Your task to perform on an android device: Open CNN.com Image 0: 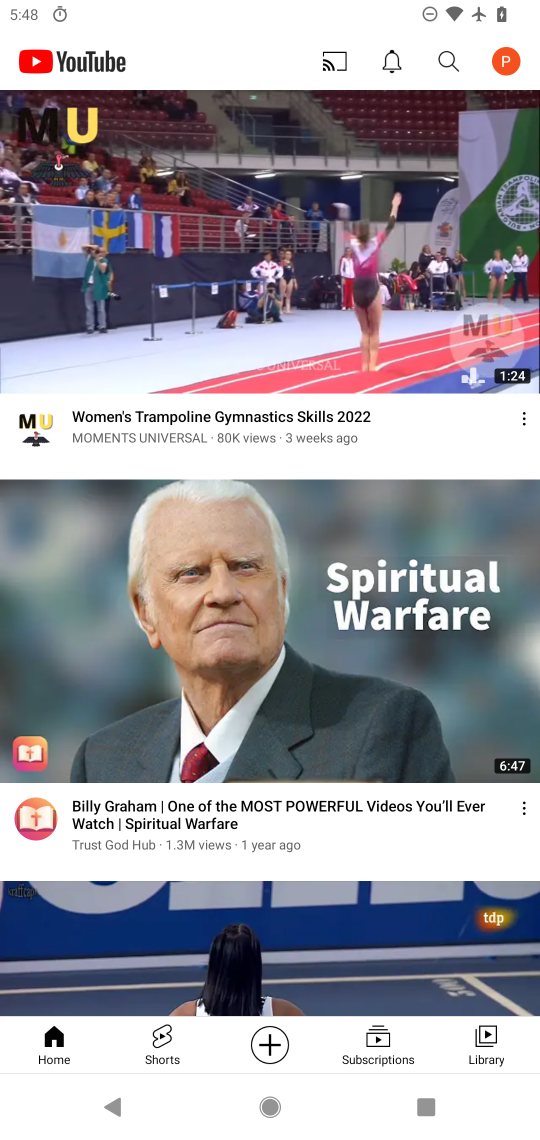
Step 0: press home button
Your task to perform on an android device: Open CNN.com Image 1: 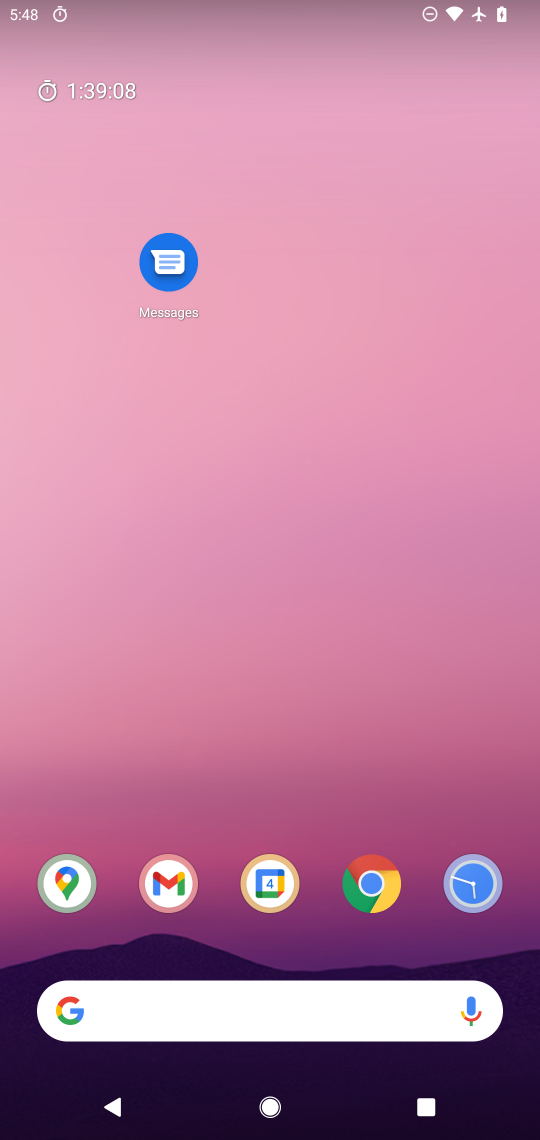
Step 1: drag from (311, 893) to (311, 85)
Your task to perform on an android device: Open CNN.com Image 2: 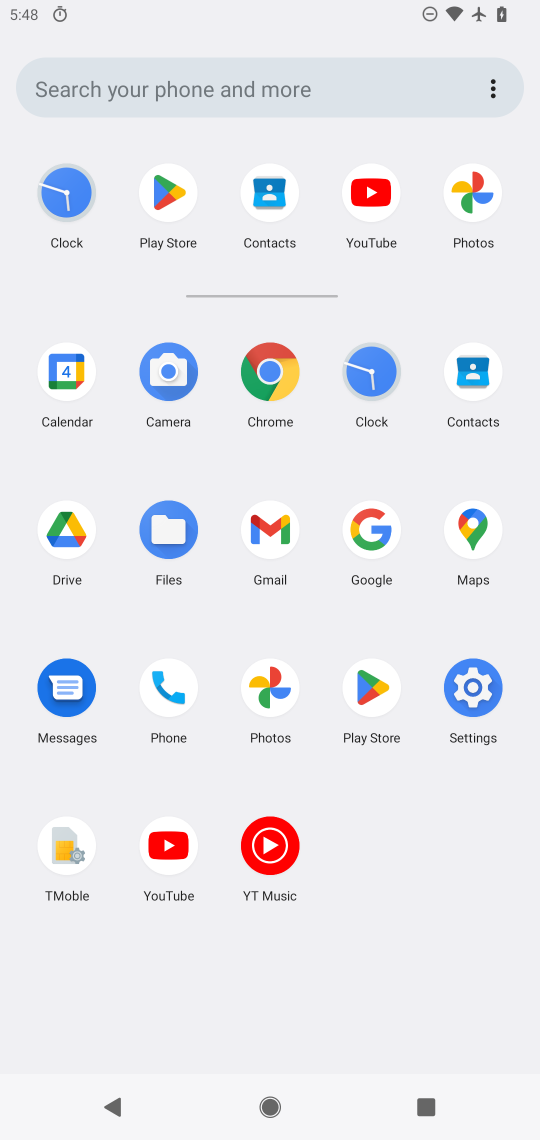
Step 2: click (274, 375)
Your task to perform on an android device: Open CNN.com Image 3: 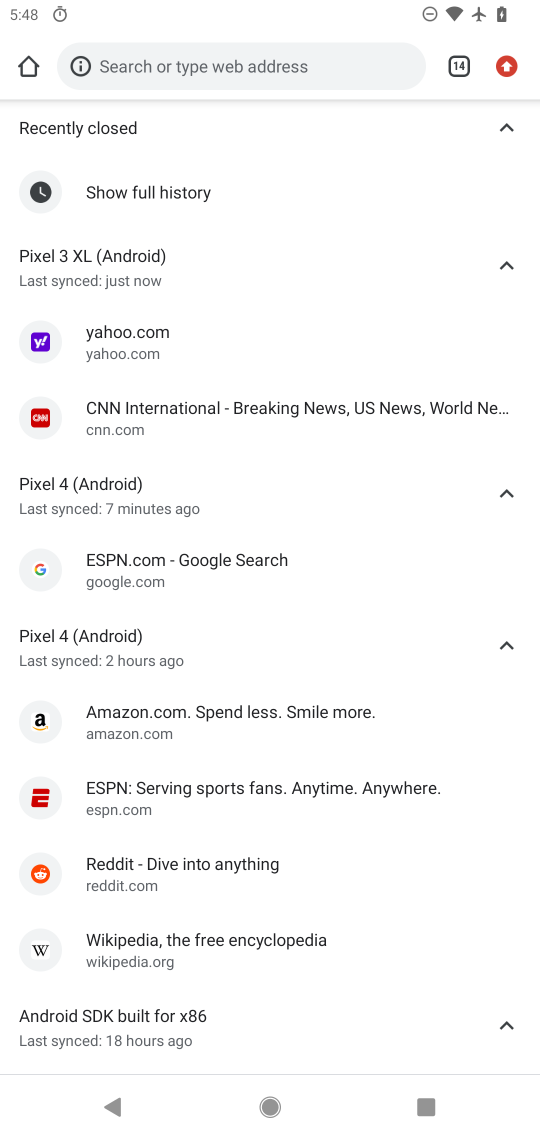
Step 3: click (505, 74)
Your task to perform on an android device: Open CNN.com Image 4: 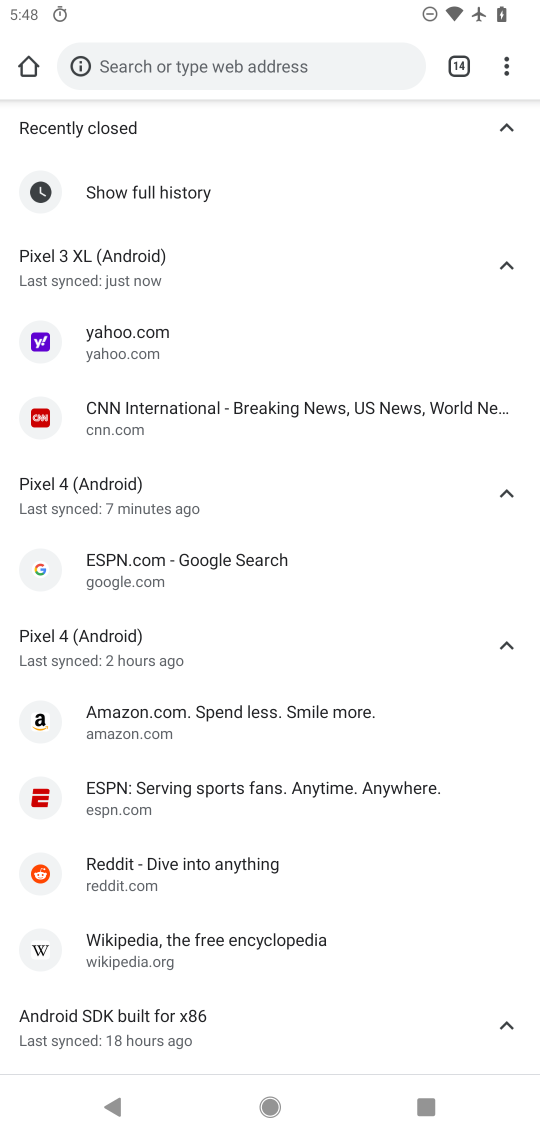
Step 4: click (502, 69)
Your task to perform on an android device: Open CNN.com Image 5: 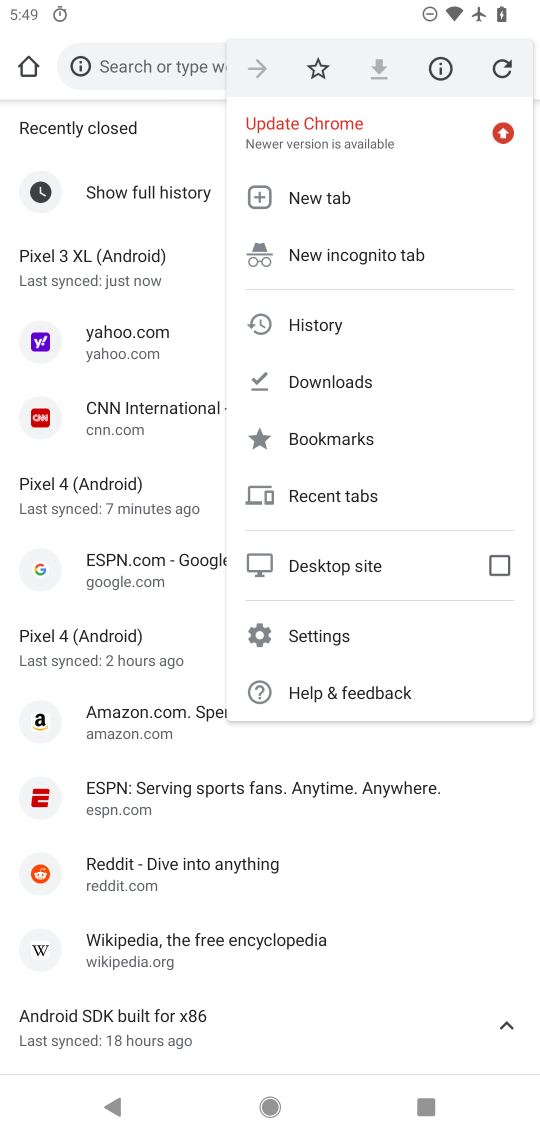
Step 5: click (306, 193)
Your task to perform on an android device: Open CNN.com Image 6: 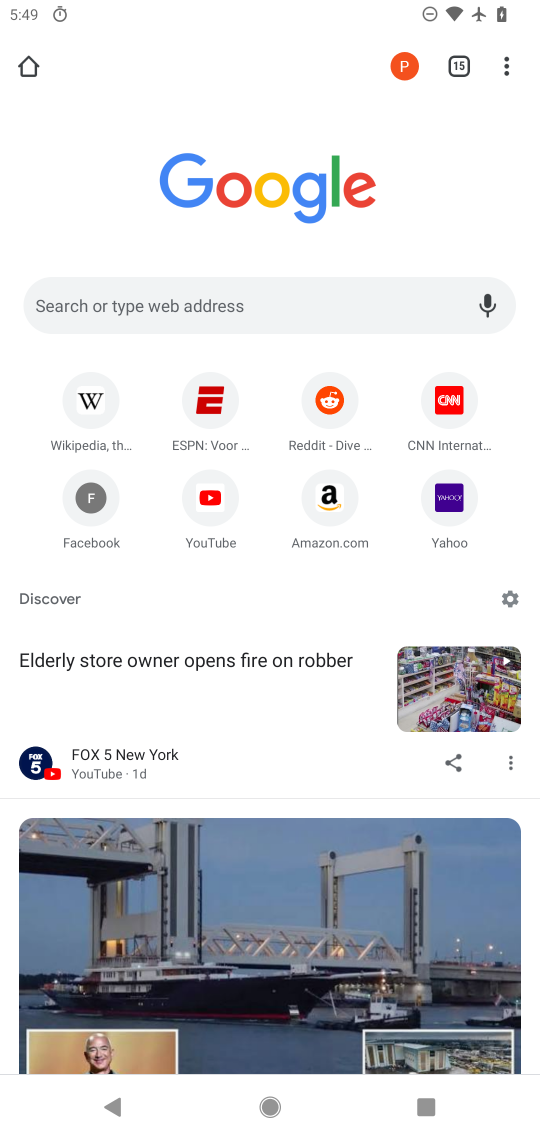
Step 6: click (301, 305)
Your task to perform on an android device: Open CNN.com Image 7: 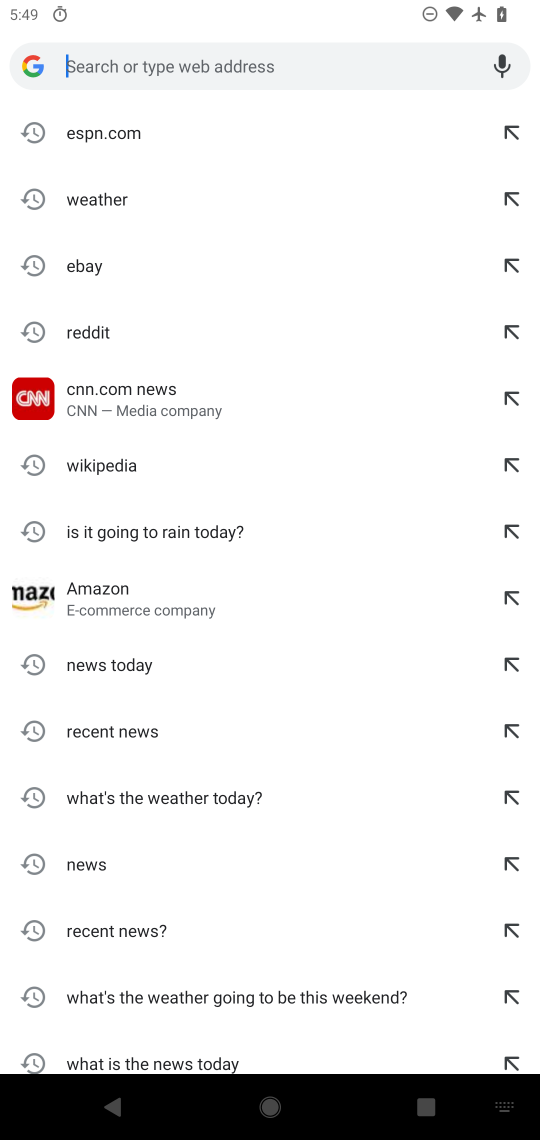
Step 7: click (144, 386)
Your task to perform on an android device: Open CNN.com Image 8: 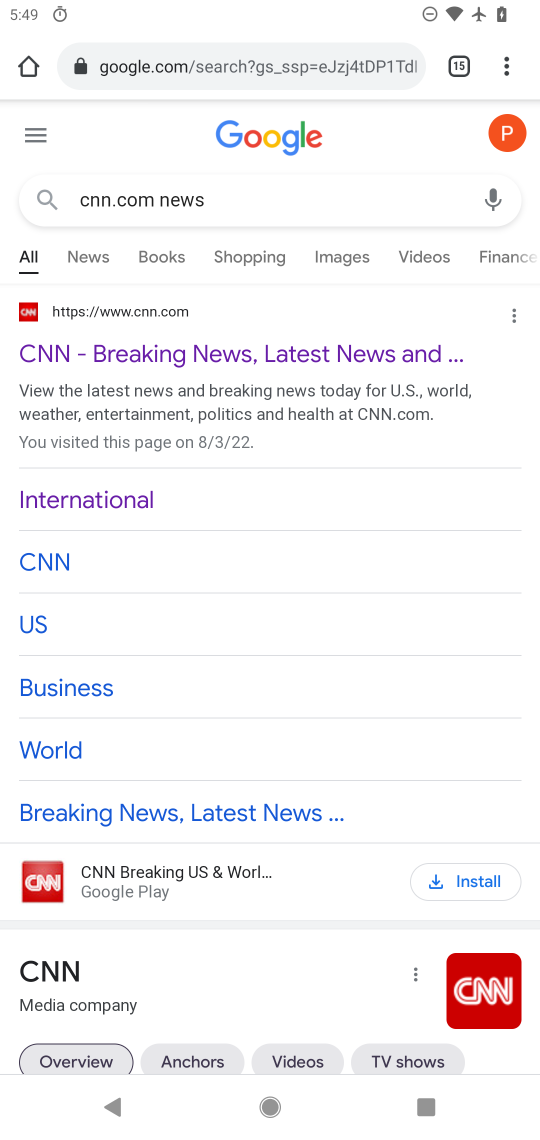
Step 8: click (159, 352)
Your task to perform on an android device: Open CNN.com Image 9: 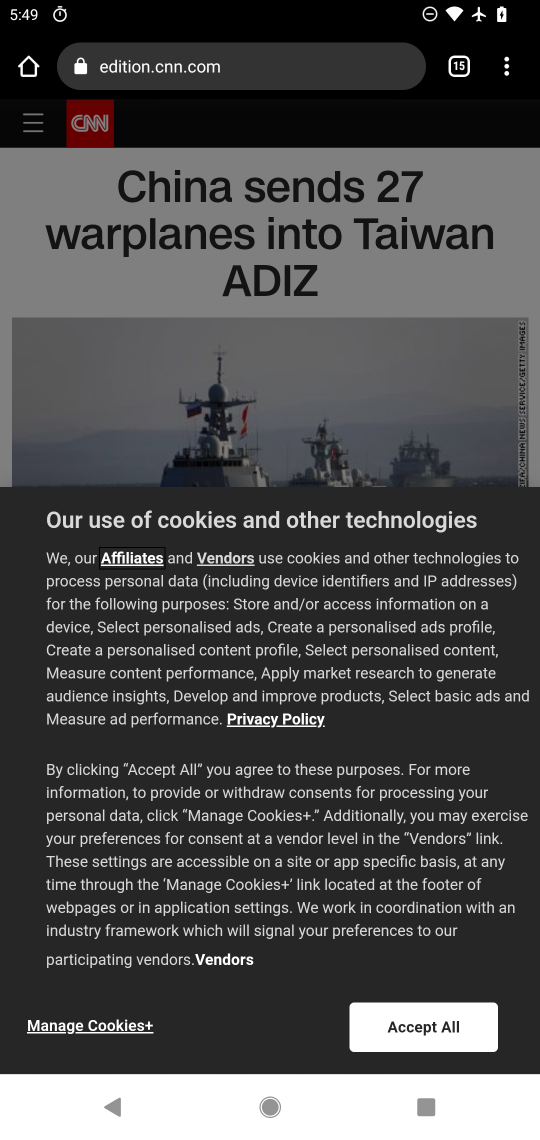
Step 9: task complete